Your task to perform on an android device: turn off translation in the chrome app Image 0: 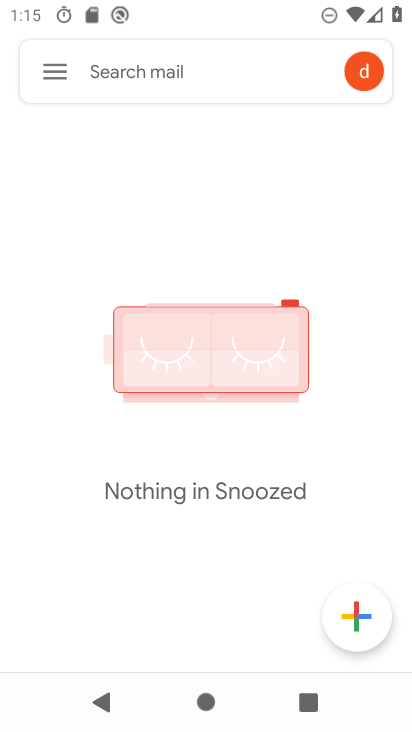
Step 0: press home button
Your task to perform on an android device: turn off translation in the chrome app Image 1: 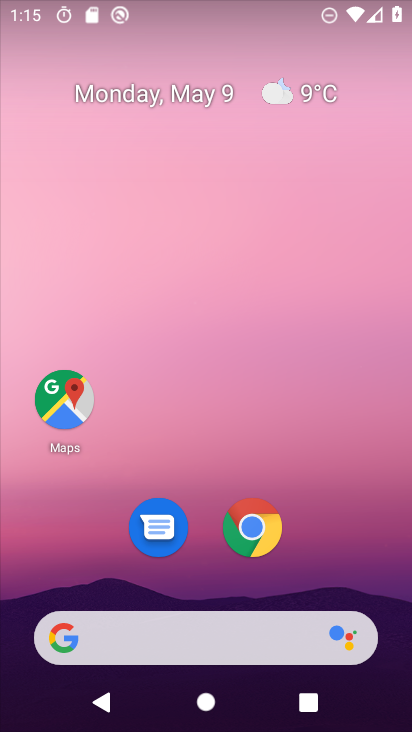
Step 1: click (244, 539)
Your task to perform on an android device: turn off translation in the chrome app Image 2: 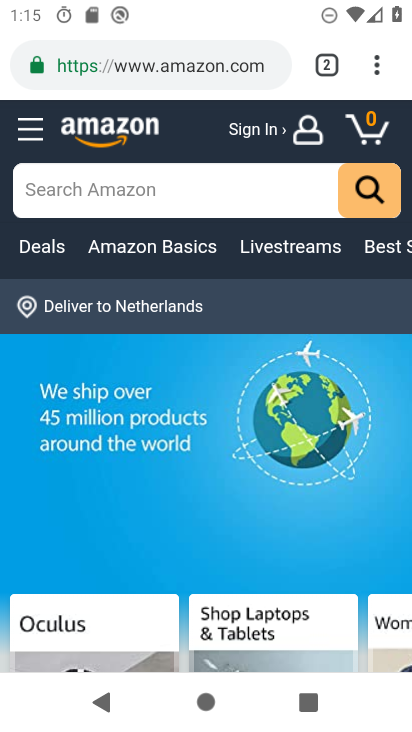
Step 2: click (371, 64)
Your task to perform on an android device: turn off translation in the chrome app Image 3: 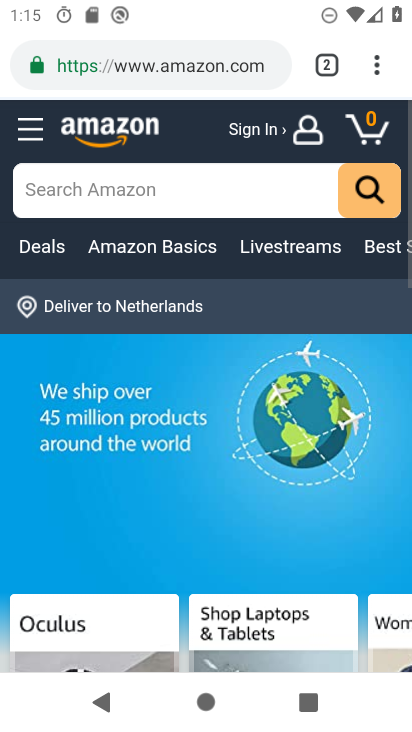
Step 3: drag from (382, 62) to (158, 572)
Your task to perform on an android device: turn off translation in the chrome app Image 4: 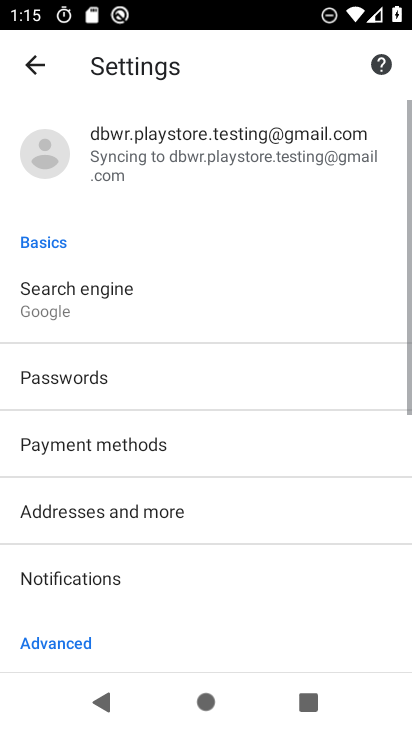
Step 4: drag from (149, 579) to (225, 28)
Your task to perform on an android device: turn off translation in the chrome app Image 5: 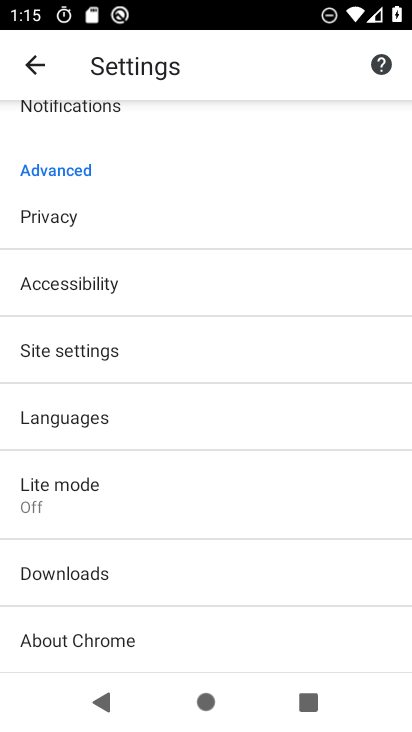
Step 5: click (51, 428)
Your task to perform on an android device: turn off translation in the chrome app Image 6: 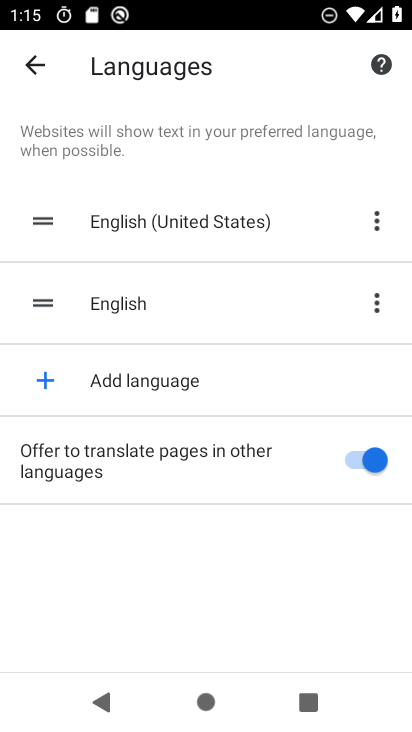
Step 6: click (361, 461)
Your task to perform on an android device: turn off translation in the chrome app Image 7: 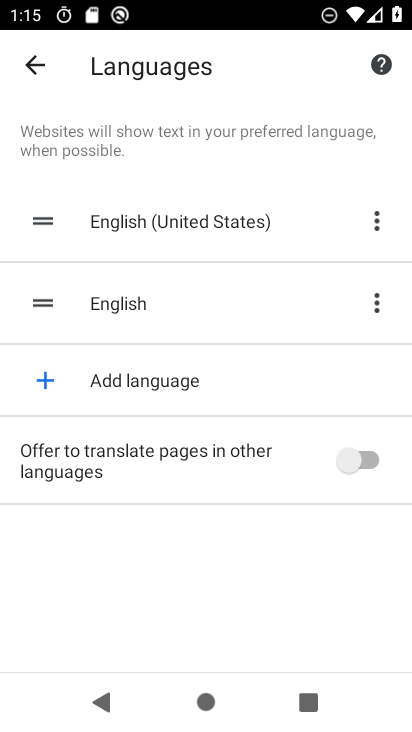
Step 7: task complete